Your task to perform on an android device: Open the map Image 0: 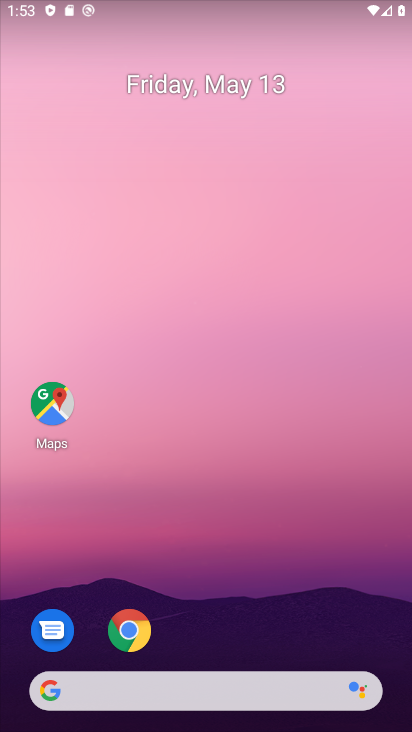
Step 0: click (56, 400)
Your task to perform on an android device: Open the map Image 1: 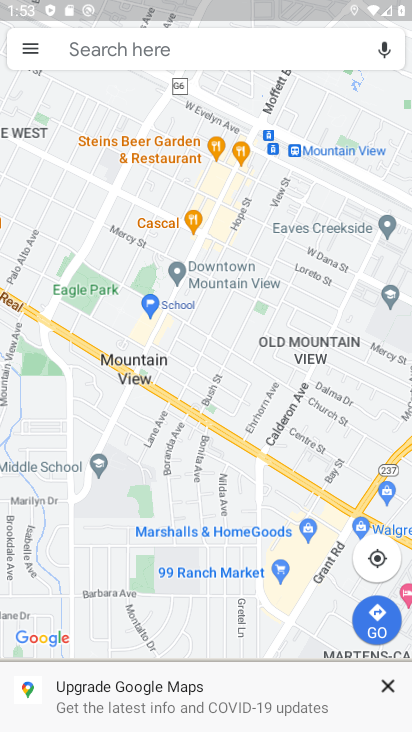
Step 1: task complete